Your task to perform on an android device: open device folders in google photos Image 0: 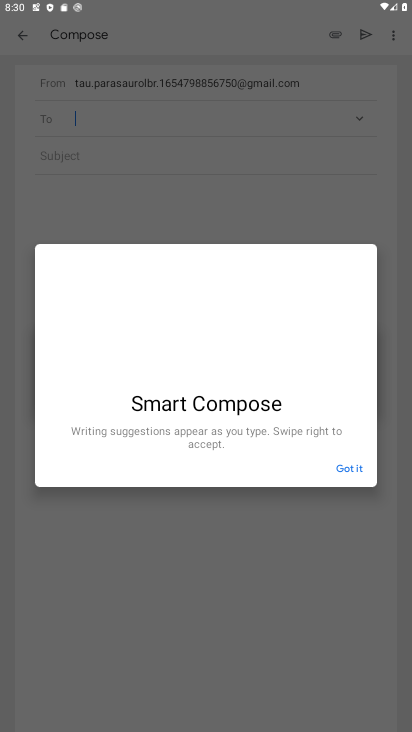
Step 0: press home button
Your task to perform on an android device: open device folders in google photos Image 1: 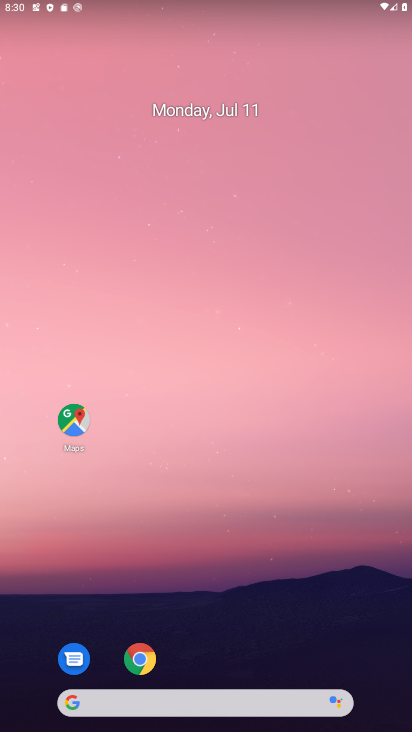
Step 1: drag from (200, 560) to (171, 219)
Your task to perform on an android device: open device folders in google photos Image 2: 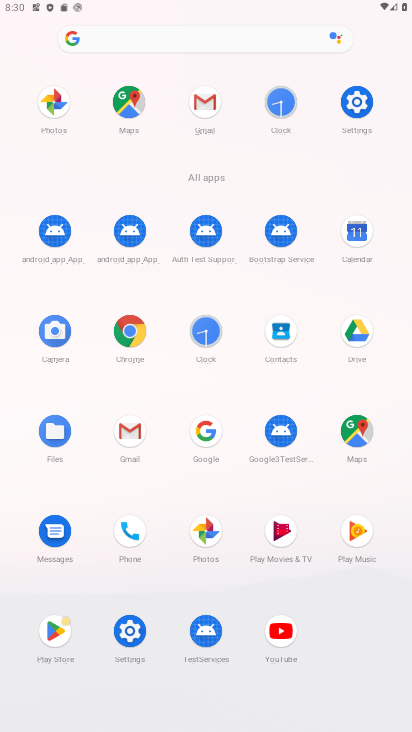
Step 2: click (206, 534)
Your task to perform on an android device: open device folders in google photos Image 3: 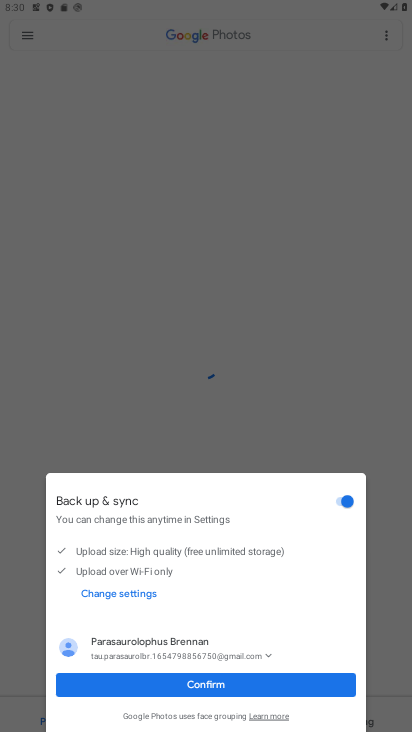
Step 3: click (201, 689)
Your task to perform on an android device: open device folders in google photos Image 4: 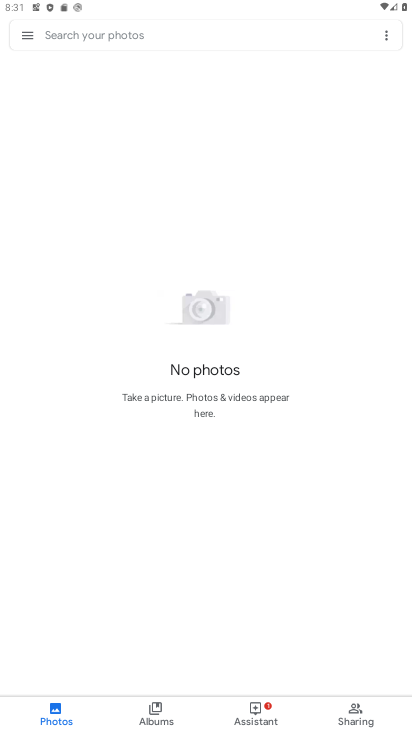
Step 4: click (25, 32)
Your task to perform on an android device: open device folders in google photos Image 5: 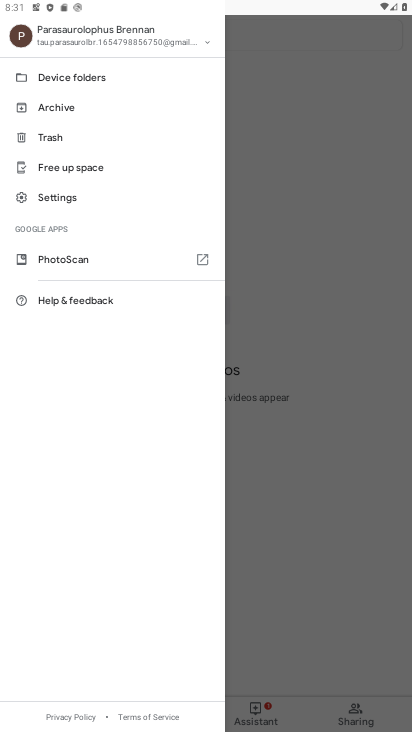
Step 5: click (57, 72)
Your task to perform on an android device: open device folders in google photos Image 6: 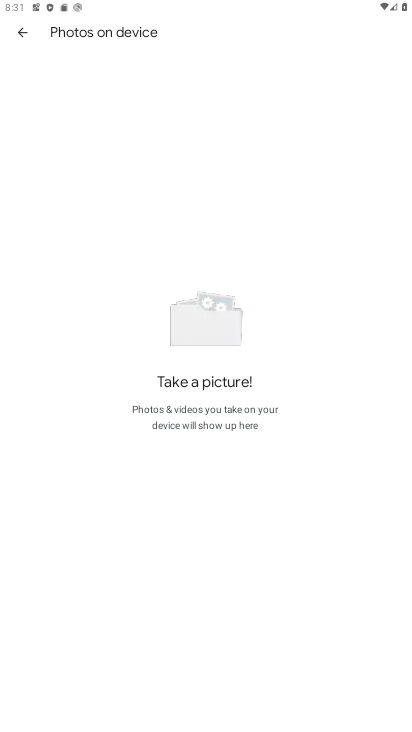
Step 6: task complete